Your task to perform on an android device: change notifications settings Image 0: 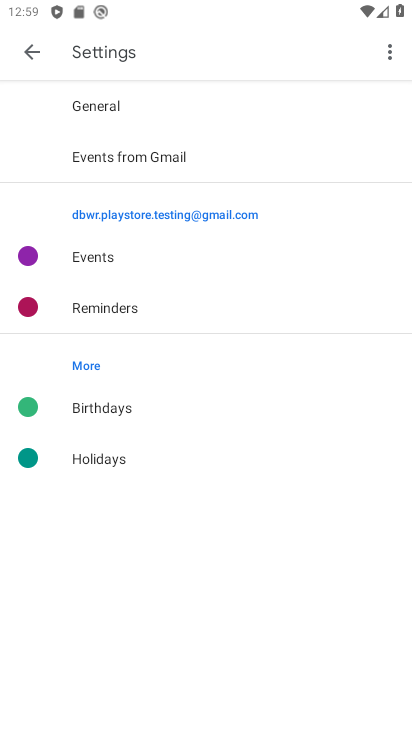
Step 0: press home button
Your task to perform on an android device: change notifications settings Image 1: 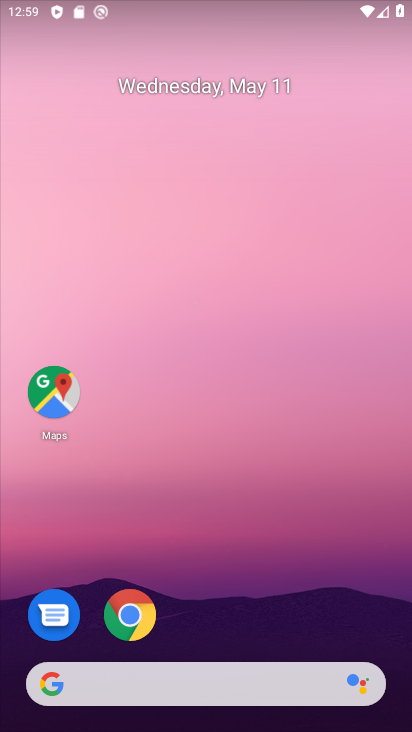
Step 1: drag from (363, 623) to (346, 182)
Your task to perform on an android device: change notifications settings Image 2: 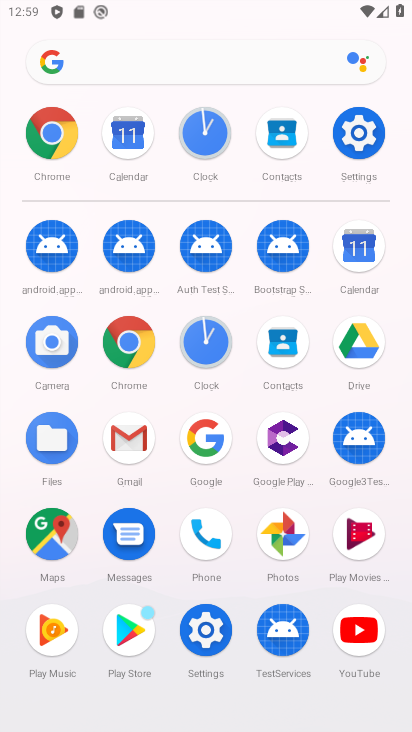
Step 2: click (216, 631)
Your task to perform on an android device: change notifications settings Image 3: 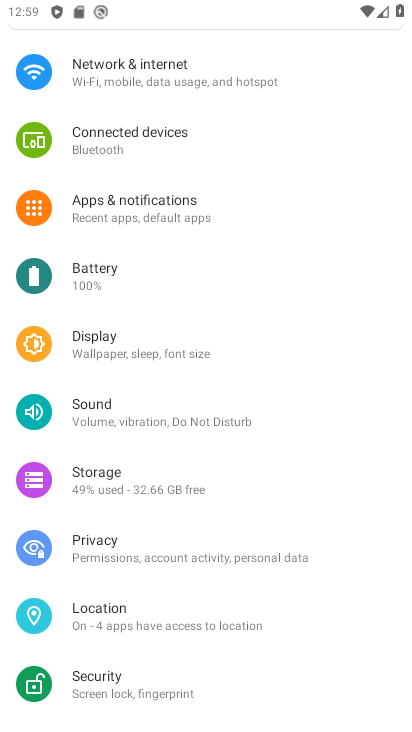
Step 3: click (160, 206)
Your task to perform on an android device: change notifications settings Image 4: 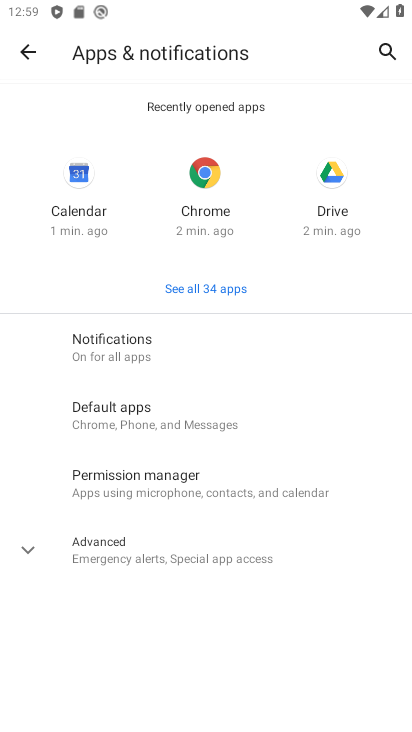
Step 4: click (176, 335)
Your task to perform on an android device: change notifications settings Image 5: 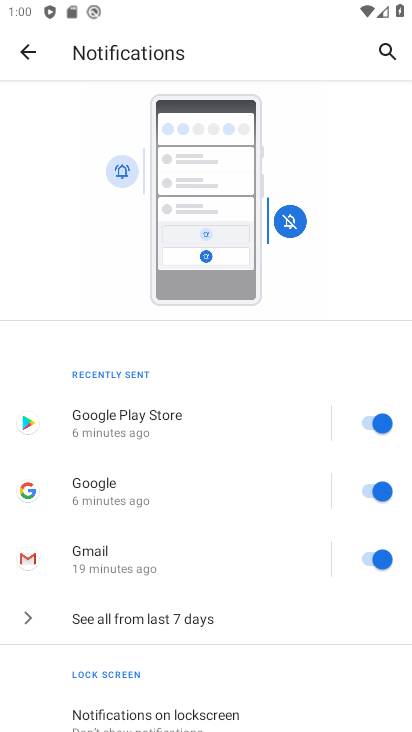
Step 5: drag from (235, 653) to (240, 348)
Your task to perform on an android device: change notifications settings Image 6: 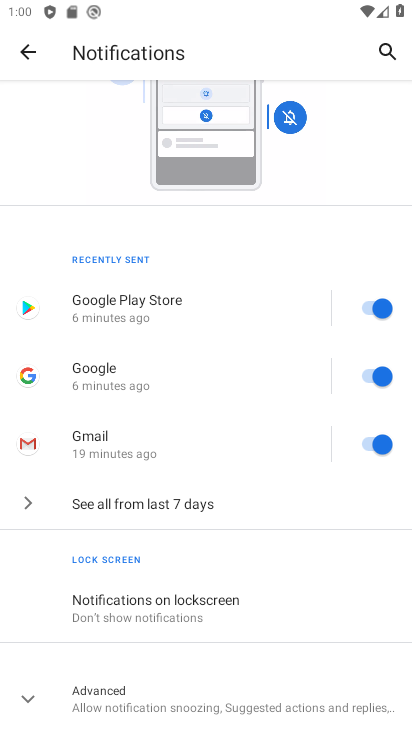
Step 6: click (368, 305)
Your task to perform on an android device: change notifications settings Image 7: 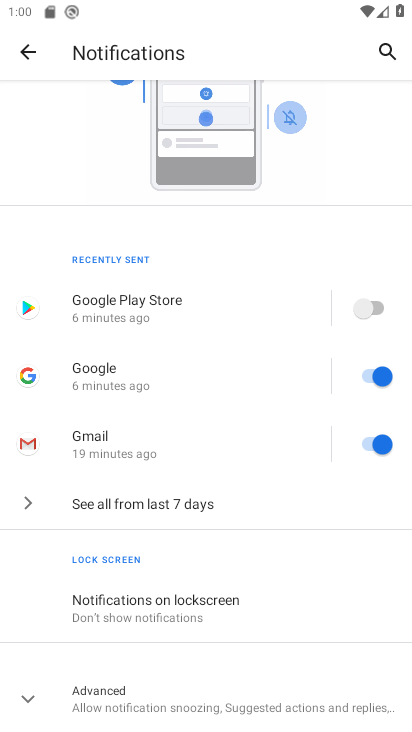
Step 7: press home button
Your task to perform on an android device: change notifications settings Image 8: 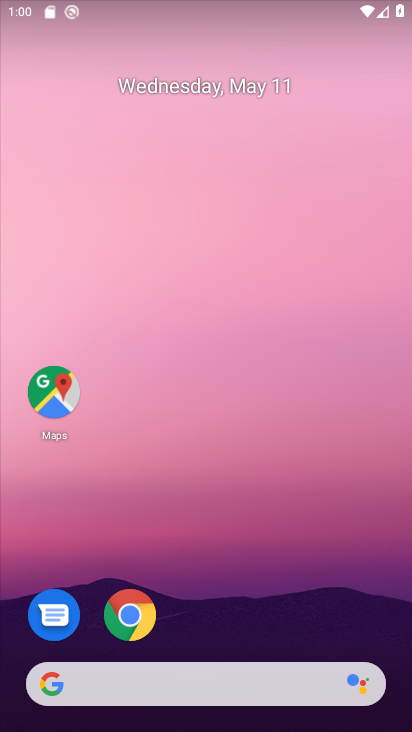
Step 8: drag from (342, 589) to (337, 171)
Your task to perform on an android device: change notifications settings Image 9: 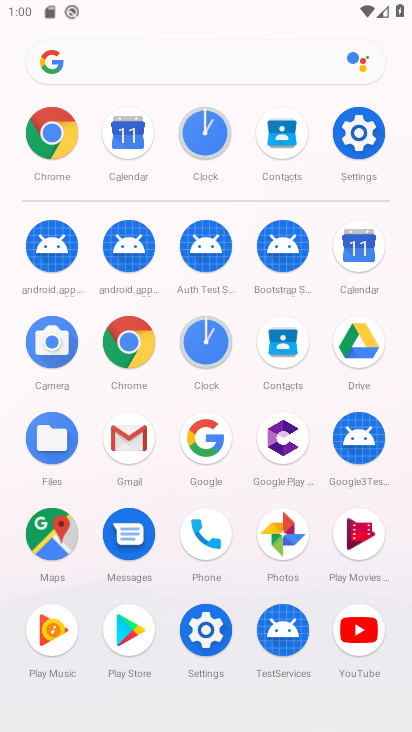
Step 9: click (378, 151)
Your task to perform on an android device: change notifications settings Image 10: 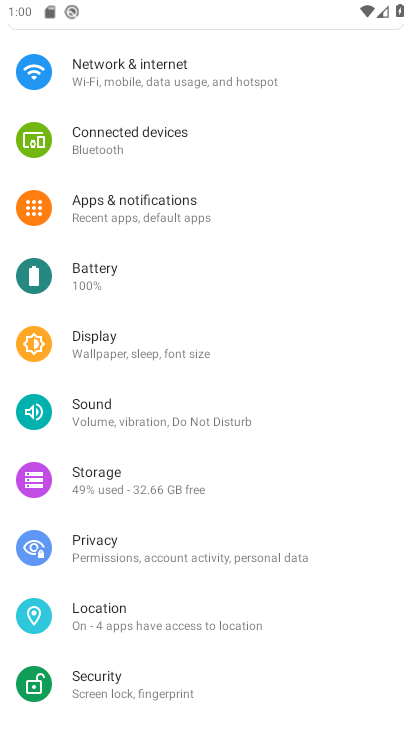
Step 10: click (167, 197)
Your task to perform on an android device: change notifications settings Image 11: 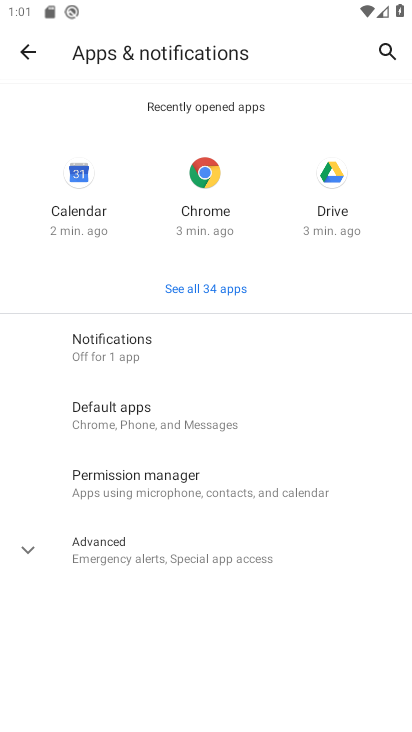
Step 11: click (181, 376)
Your task to perform on an android device: change notifications settings Image 12: 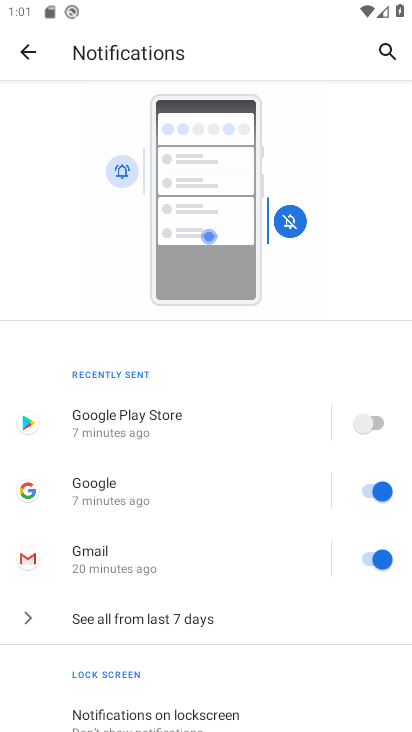
Step 12: task complete